Your task to perform on an android device: change text size in settings app Image 0: 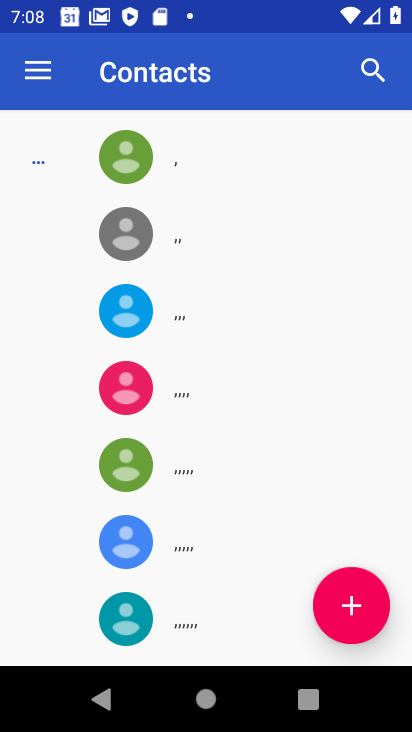
Step 0: press home button
Your task to perform on an android device: change text size in settings app Image 1: 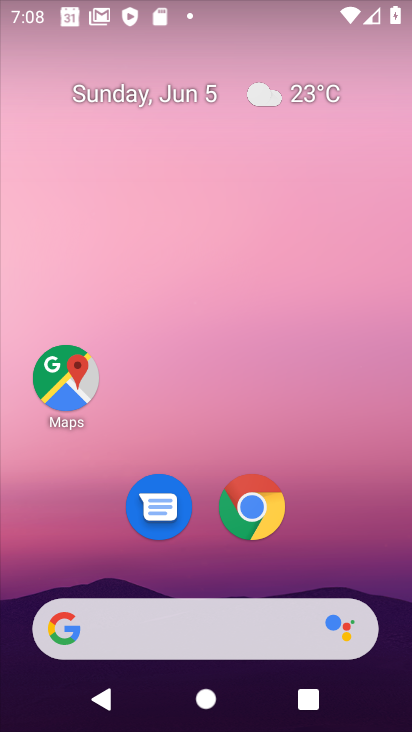
Step 1: drag from (270, 662) to (285, 117)
Your task to perform on an android device: change text size in settings app Image 2: 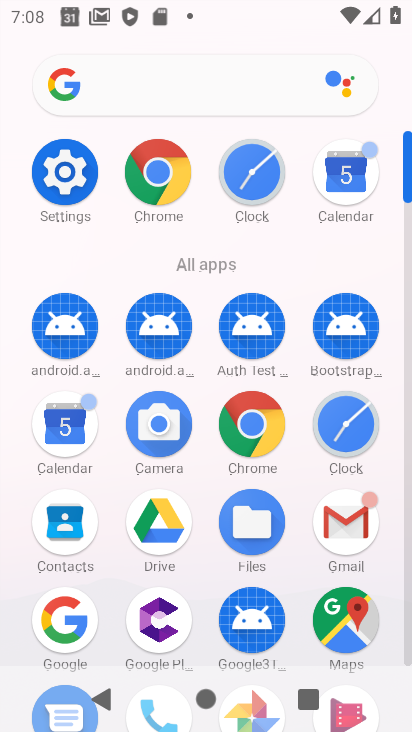
Step 2: click (75, 160)
Your task to perform on an android device: change text size in settings app Image 3: 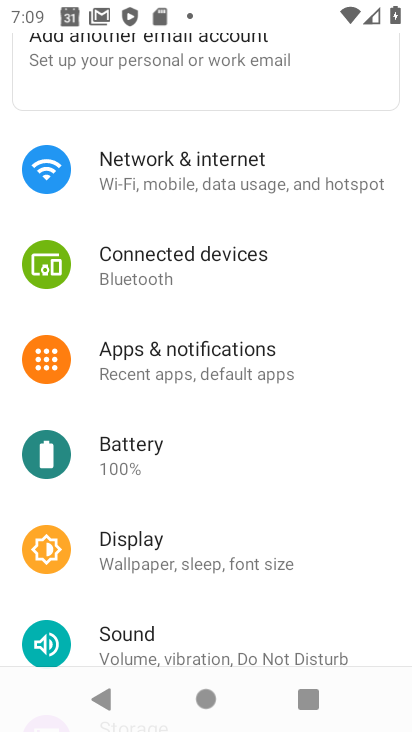
Step 3: drag from (135, 82) to (214, 390)
Your task to perform on an android device: change text size in settings app Image 4: 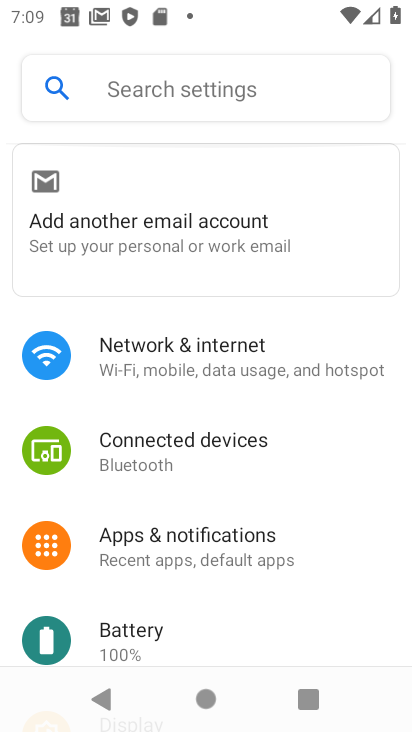
Step 4: click (126, 84)
Your task to perform on an android device: change text size in settings app Image 5: 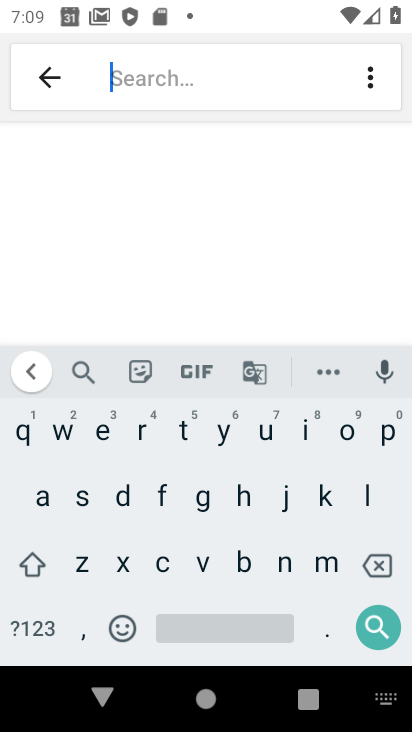
Step 5: click (82, 494)
Your task to perform on an android device: change text size in settings app Image 6: 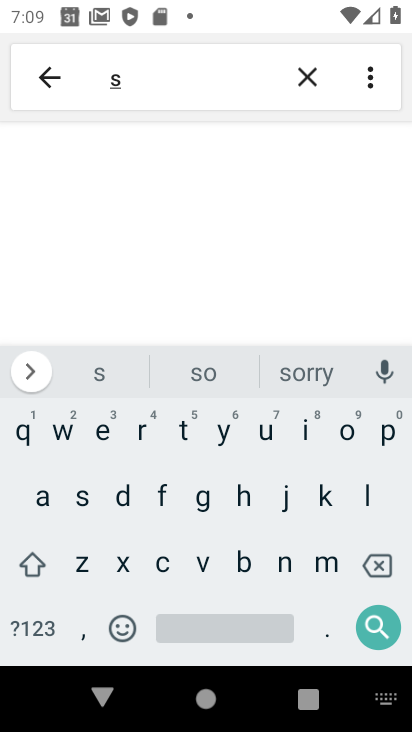
Step 6: click (303, 430)
Your task to perform on an android device: change text size in settings app Image 7: 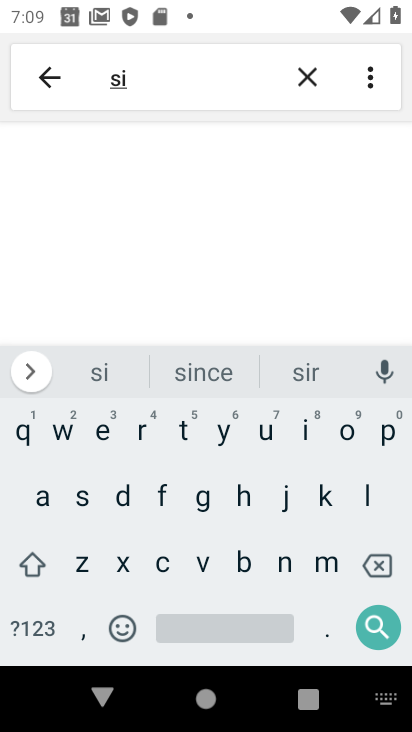
Step 7: click (80, 555)
Your task to perform on an android device: change text size in settings app Image 8: 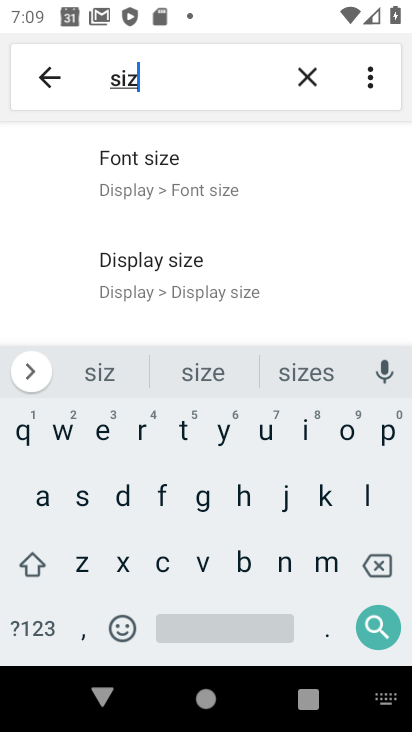
Step 8: click (168, 156)
Your task to perform on an android device: change text size in settings app Image 9: 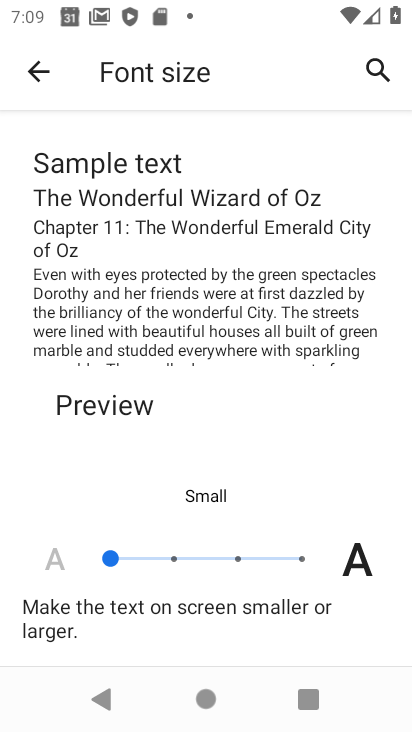
Step 9: click (165, 550)
Your task to perform on an android device: change text size in settings app Image 10: 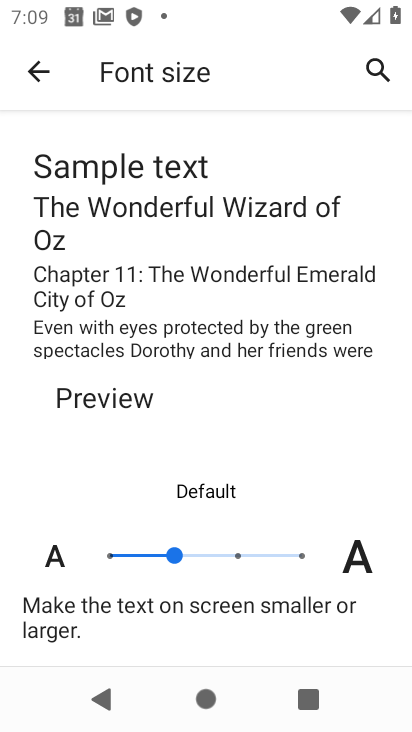
Step 10: task complete